Your task to perform on an android device: turn off data saver in the chrome app Image 0: 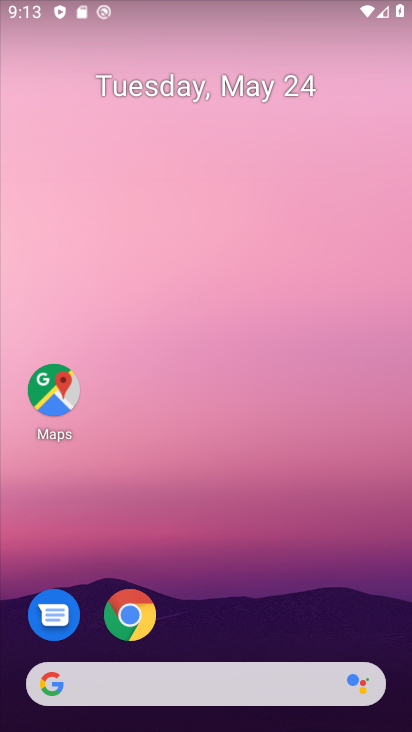
Step 0: click (129, 611)
Your task to perform on an android device: turn off data saver in the chrome app Image 1: 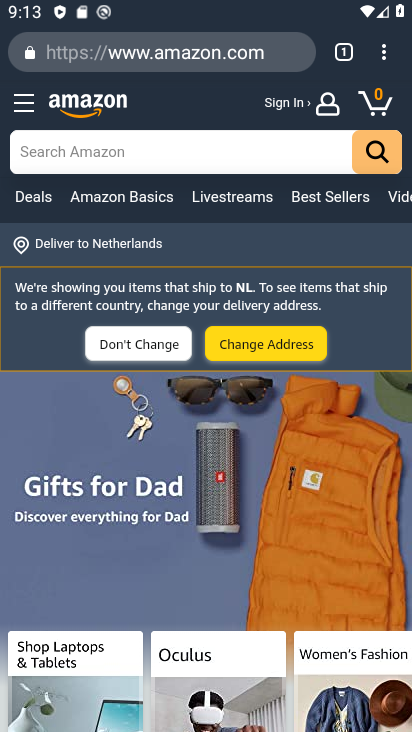
Step 1: click (373, 52)
Your task to perform on an android device: turn off data saver in the chrome app Image 2: 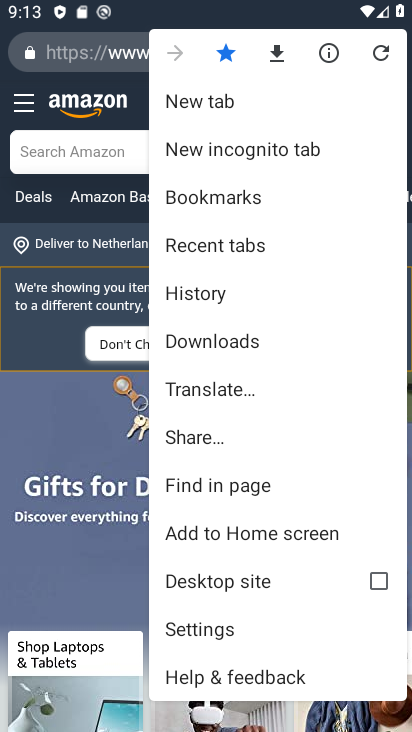
Step 2: click (236, 627)
Your task to perform on an android device: turn off data saver in the chrome app Image 3: 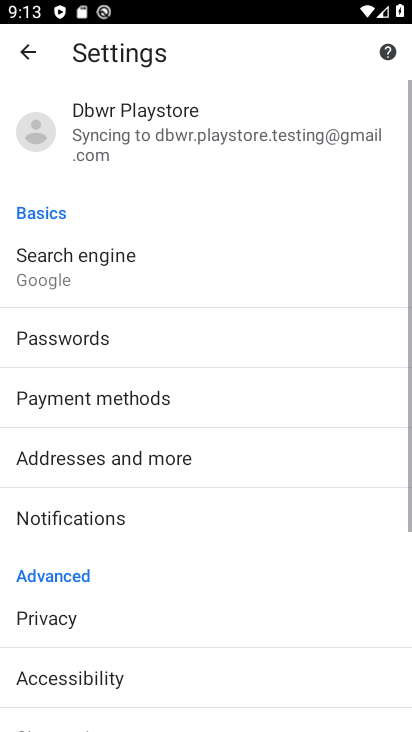
Step 3: drag from (241, 636) to (233, 275)
Your task to perform on an android device: turn off data saver in the chrome app Image 4: 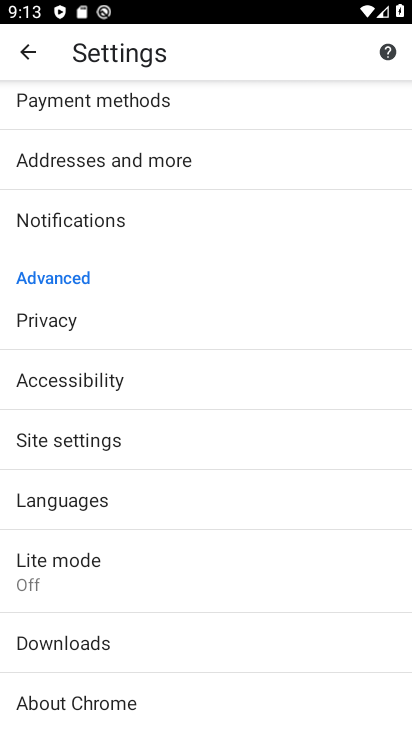
Step 4: click (98, 570)
Your task to perform on an android device: turn off data saver in the chrome app Image 5: 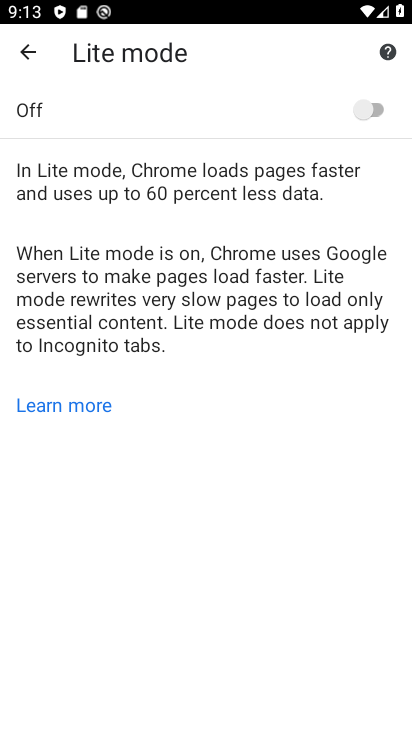
Step 5: task complete